Your task to perform on an android device: Add "logitech g pro" to the cart on costco.com, then select checkout. Image 0: 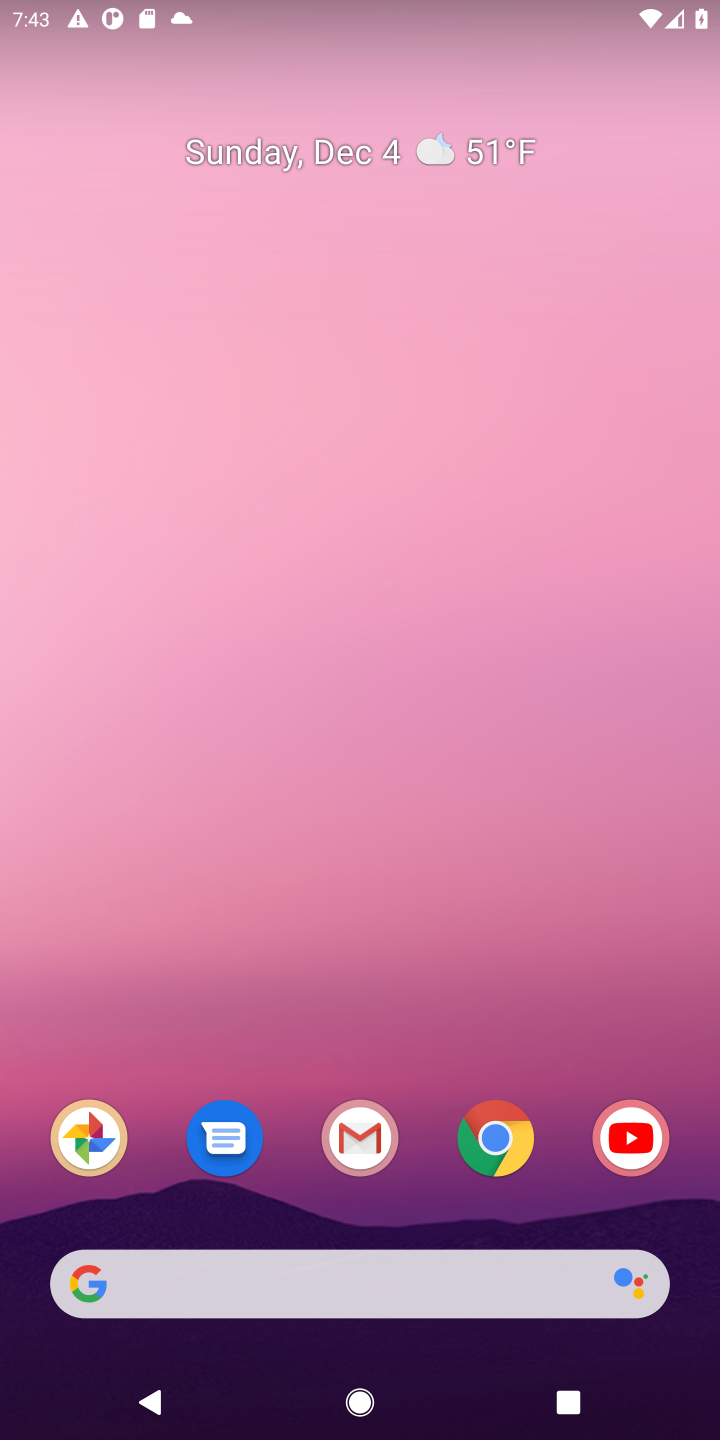
Step 0: click (501, 1156)
Your task to perform on an android device: Add "logitech g pro" to the cart on costco.com, then select checkout. Image 1: 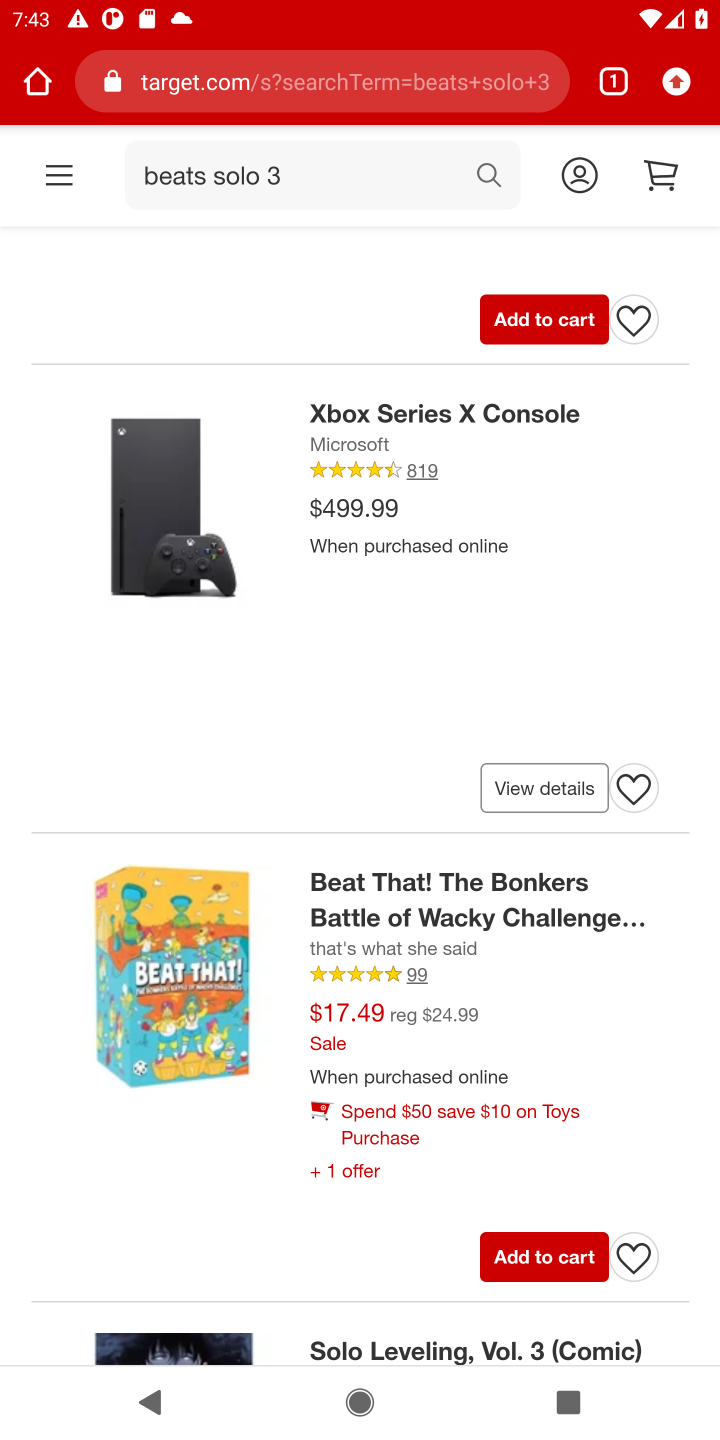
Step 1: click (408, 96)
Your task to perform on an android device: Add "logitech g pro" to the cart on costco.com, then select checkout. Image 2: 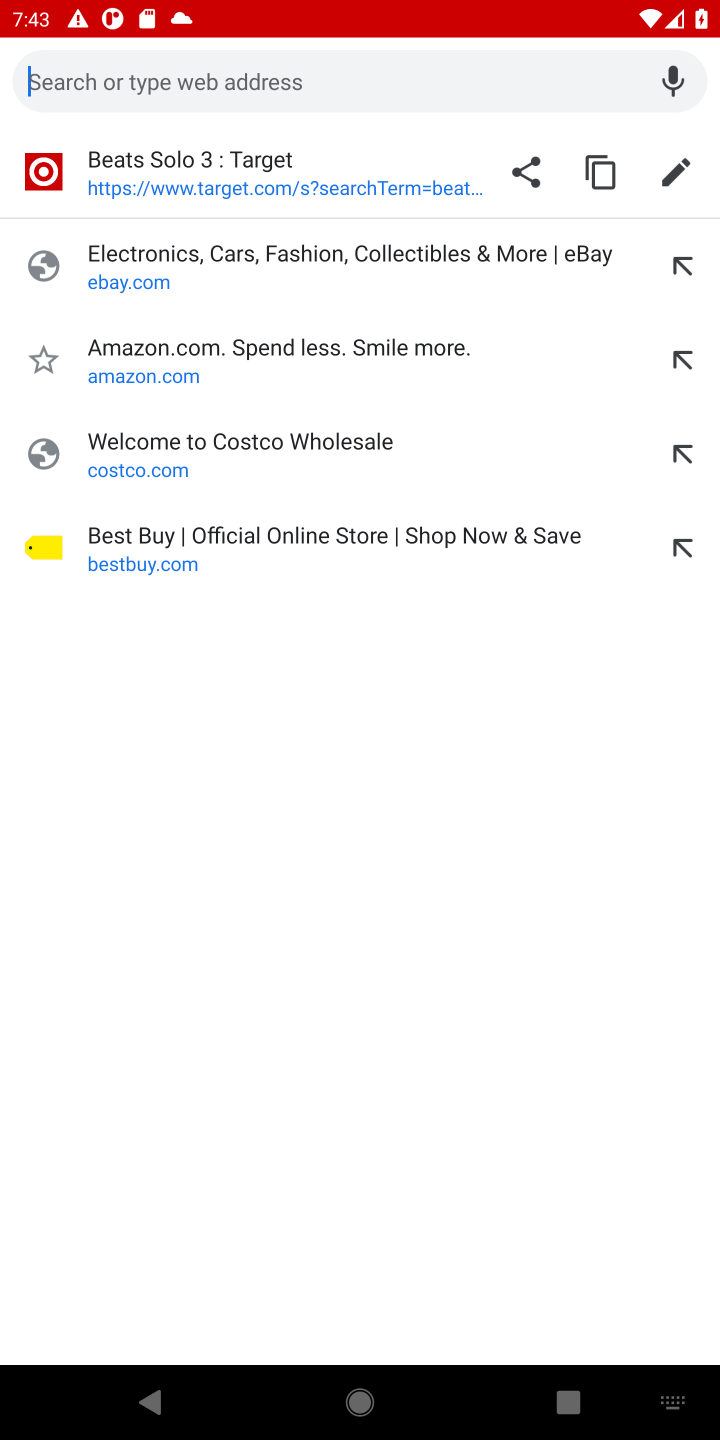
Step 2: click (288, 432)
Your task to perform on an android device: Add "logitech g pro" to the cart on costco.com, then select checkout. Image 3: 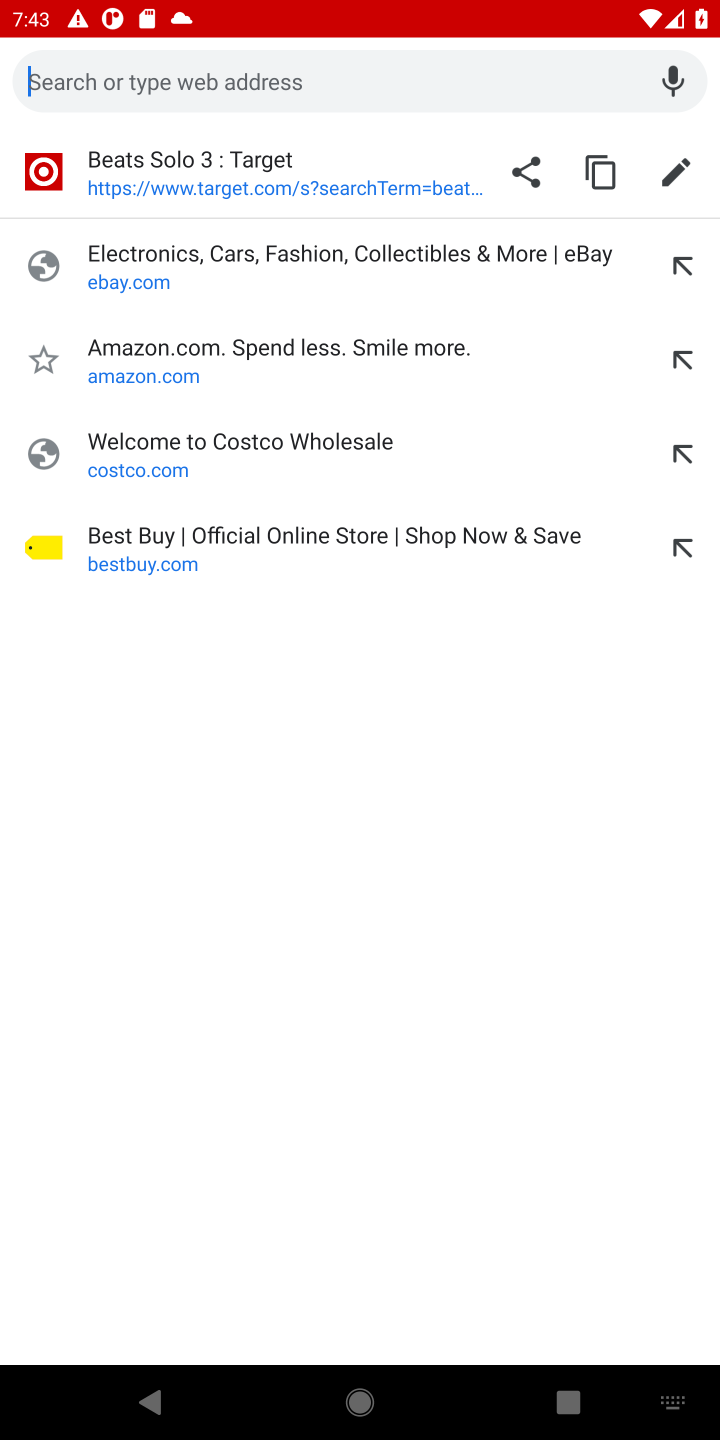
Step 3: click (277, 446)
Your task to perform on an android device: Add "logitech g pro" to the cart on costco.com, then select checkout. Image 4: 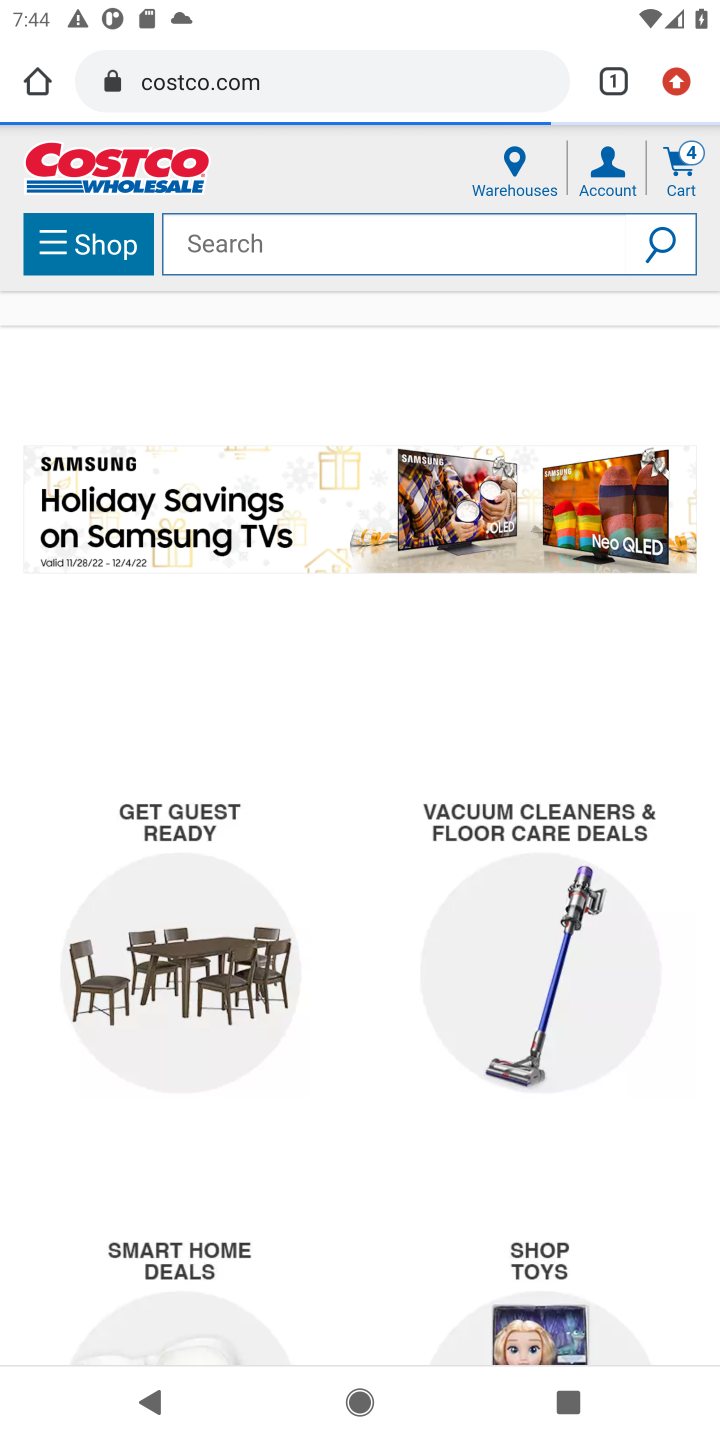
Step 4: click (429, 249)
Your task to perform on an android device: Add "logitech g pro" to the cart on costco.com, then select checkout. Image 5: 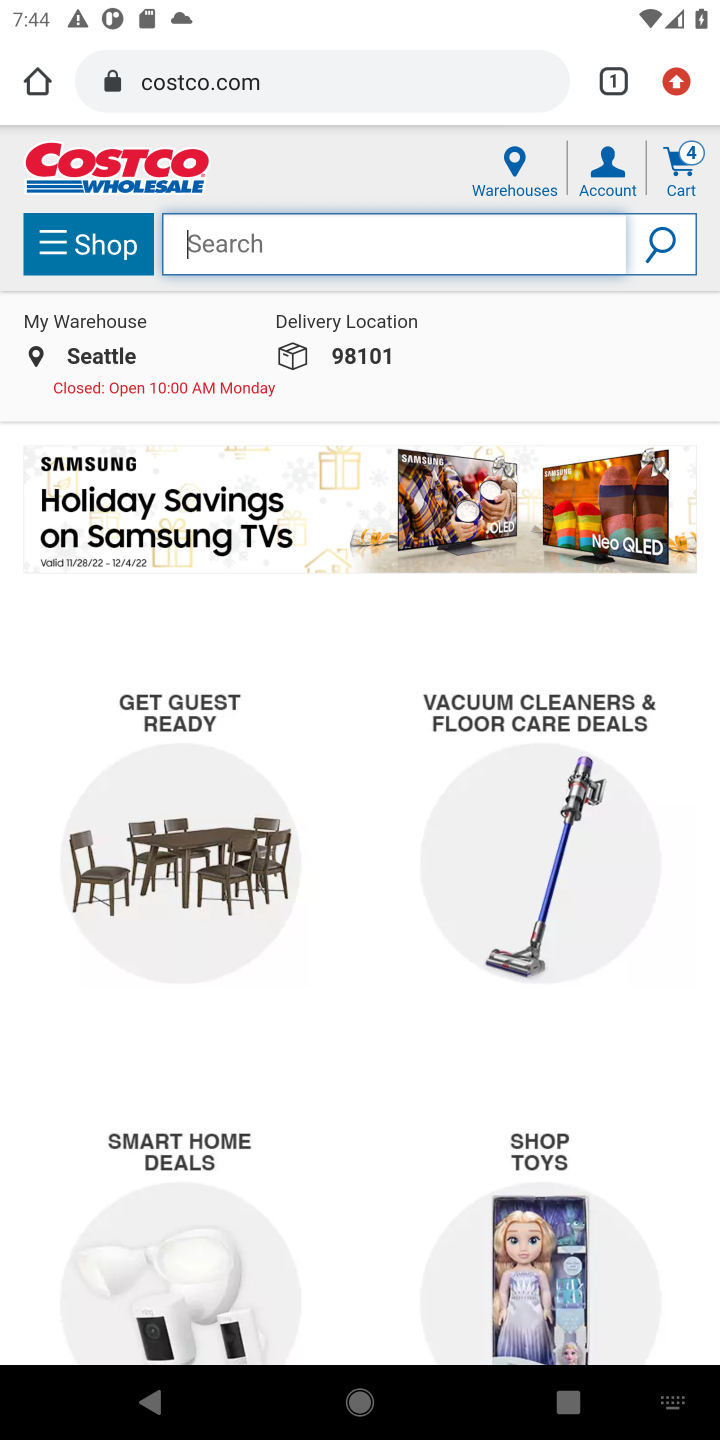
Step 5: type "logitech g pro"
Your task to perform on an android device: Add "logitech g pro" to the cart on costco.com, then select checkout. Image 6: 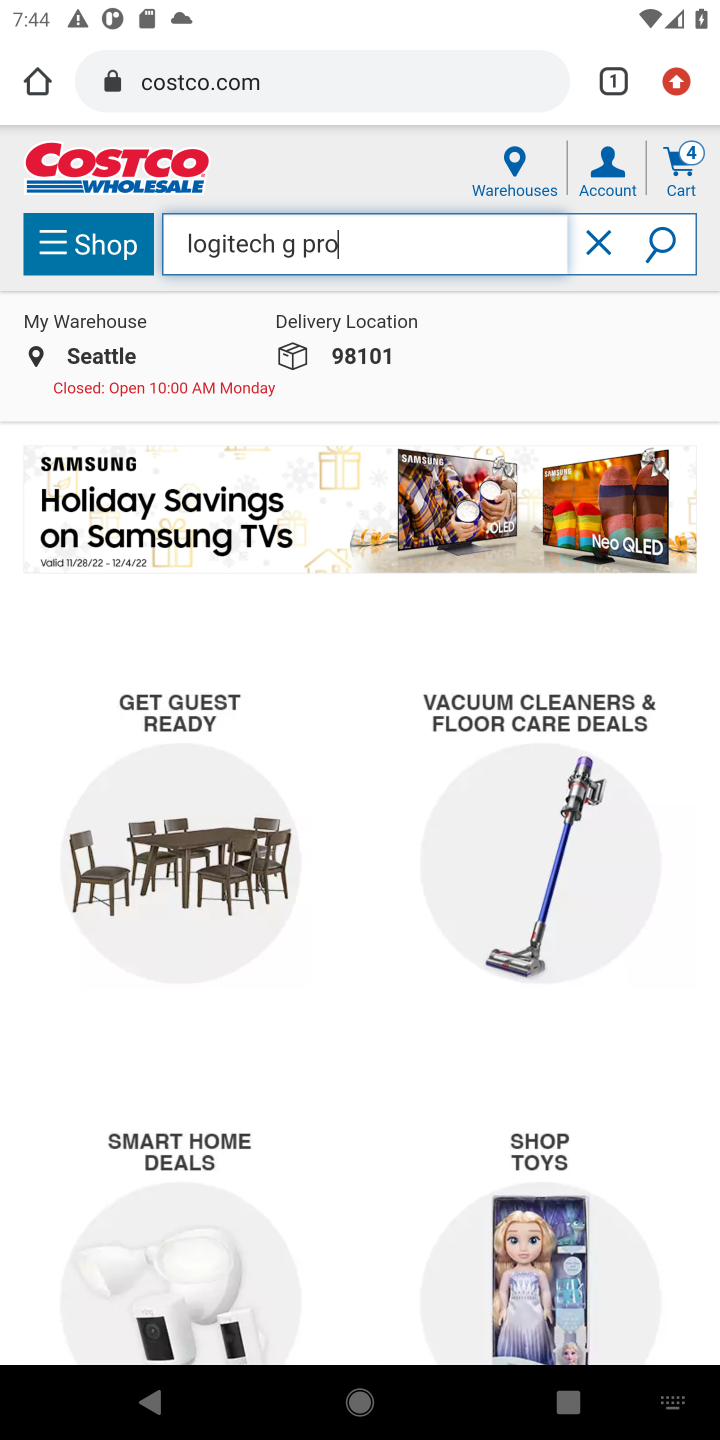
Step 6: press enter
Your task to perform on an android device: Add "logitech g pro" to the cart on costco.com, then select checkout. Image 7: 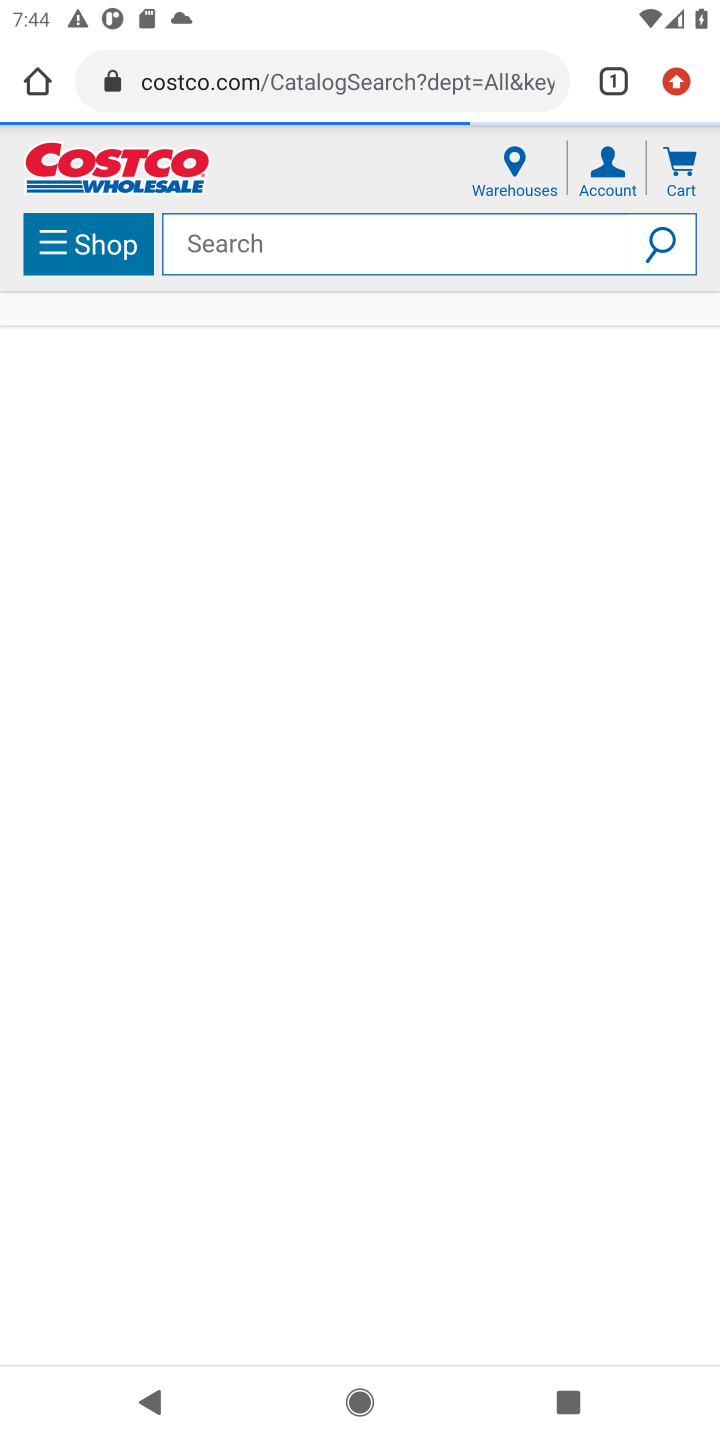
Step 7: click (667, 234)
Your task to perform on an android device: Add "logitech g pro" to the cart on costco.com, then select checkout. Image 8: 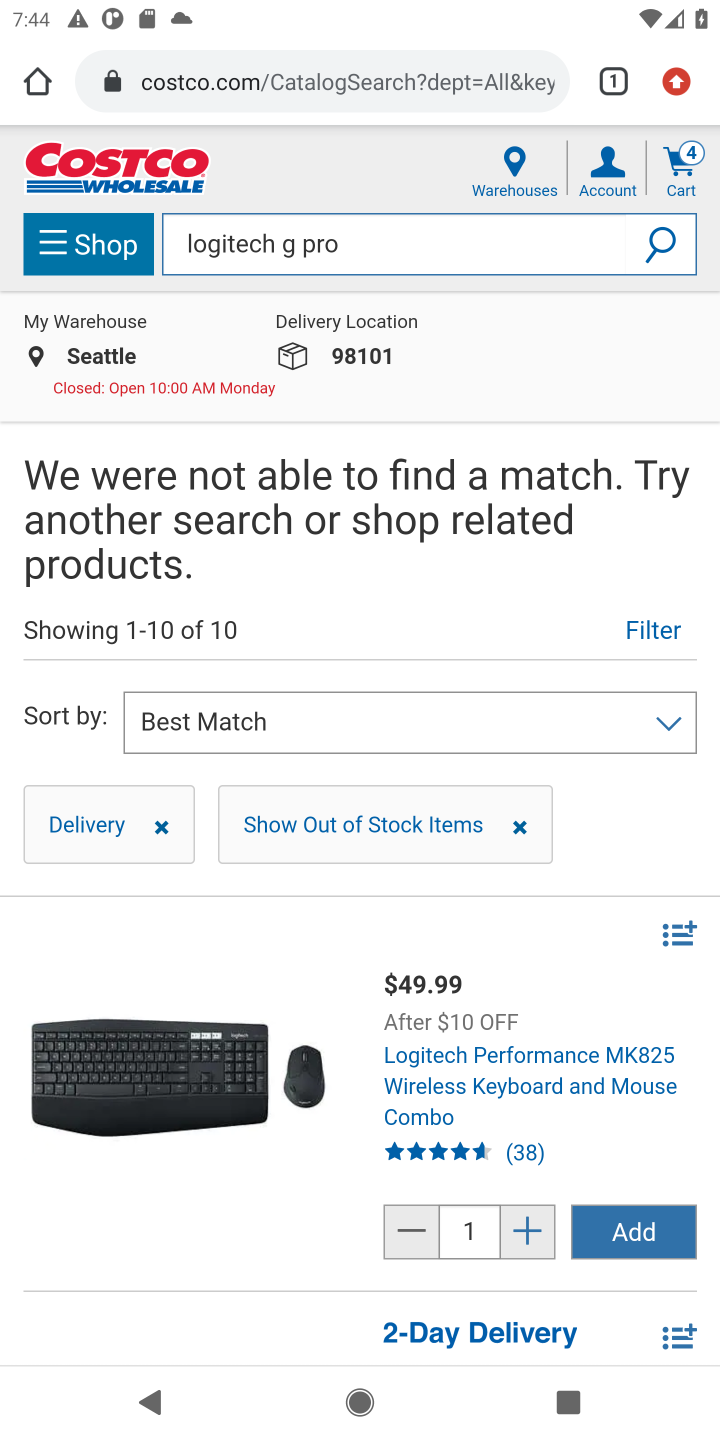
Step 8: task complete